Your task to perform on an android device: move an email to a new category in the gmail app Image 0: 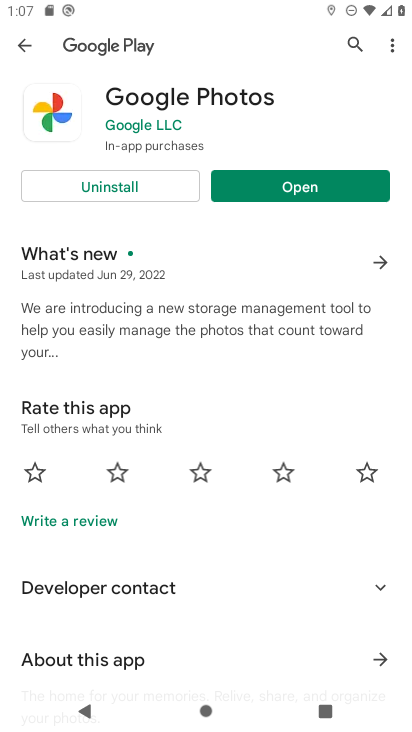
Step 0: press home button
Your task to perform on an android device: move an email to a new category in the gmail app Image 1: 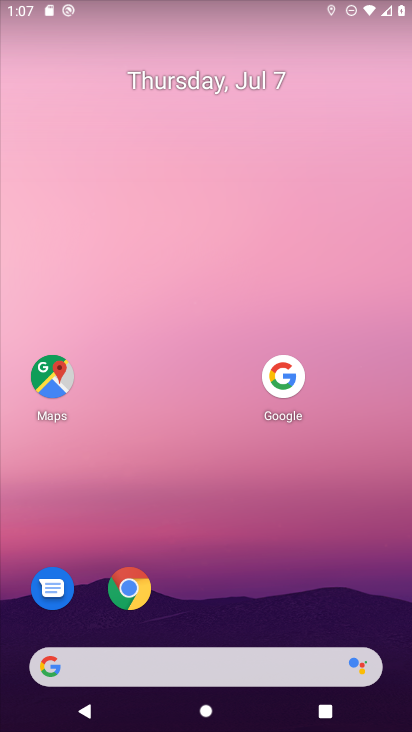
Step 1: drag from (157, 659) to (338, 209)
Your task to perform on an android device: move an email to a new category in the gmail app Image 2: 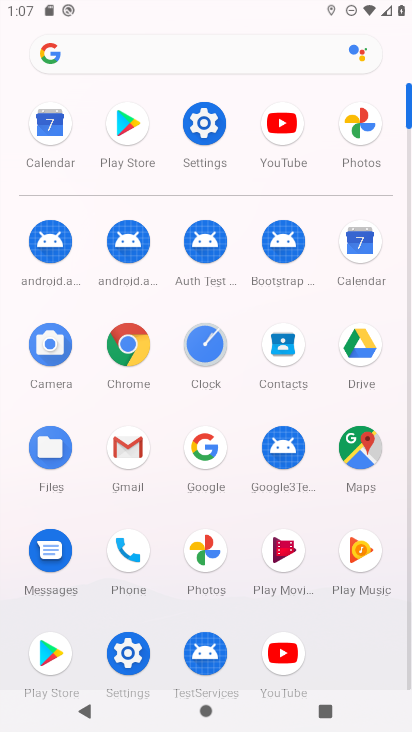
Step 2: click (130, 449)
Your task to perform on an android device: move an email to a new category in the gmail app Image 3: 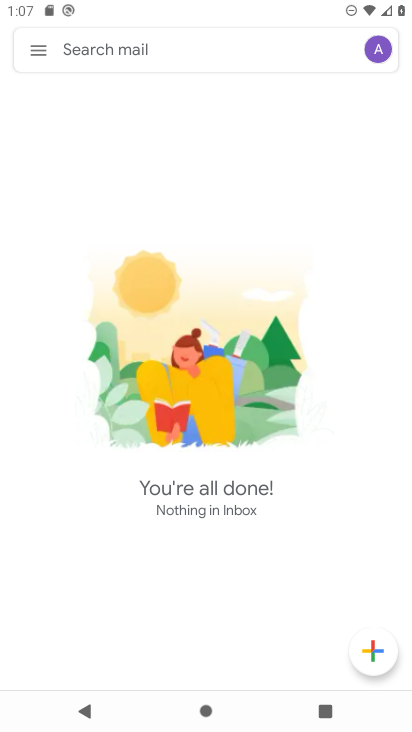
Step 3: task complete